Your task to perform on an android device: Open the calendar and show me this week's events? Image 0: 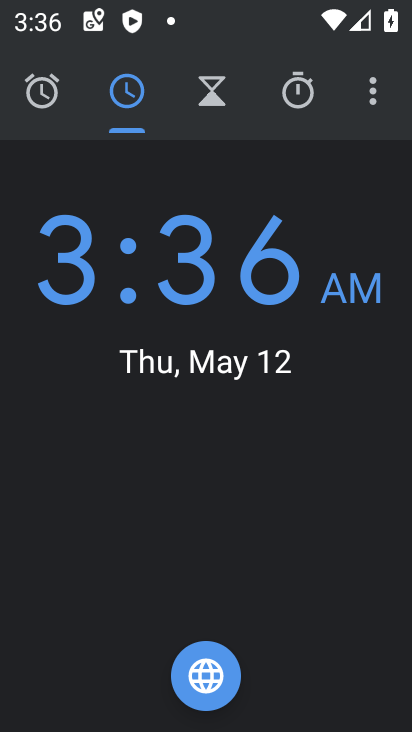
Step 0: click (368, 90)
Your task to perform on an android device: Open the calendar and show me this week's events? Image 1: 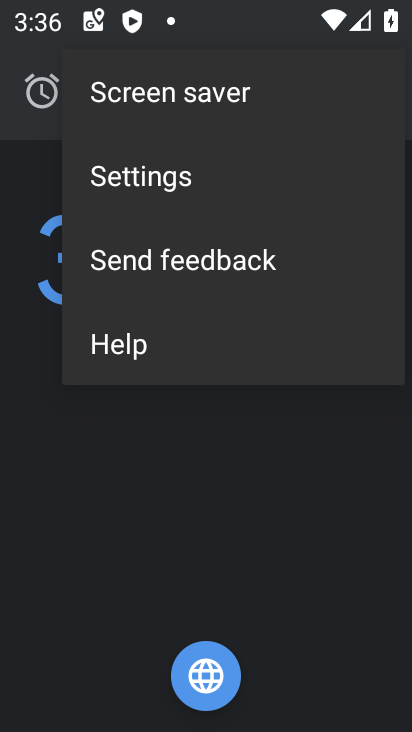
Step 1: press home button
Your task to perform on an android device: Open the calendar and show me this week's events? Image 2: 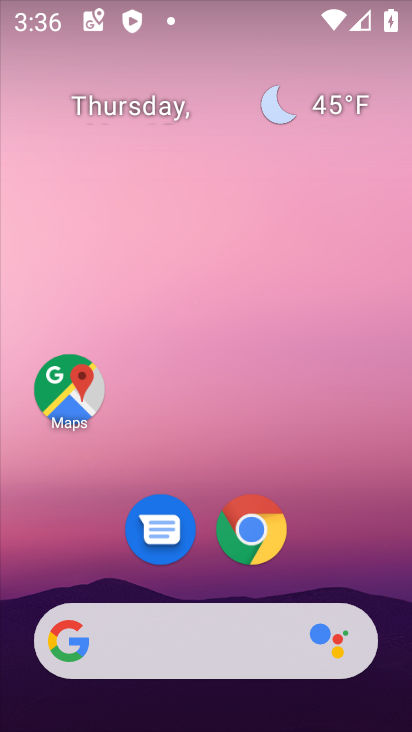
Step 2: drag from (317, 571) to (292, 42)
Your task to perform on an android device: Open the calendar and show me this week's events? Image 3: 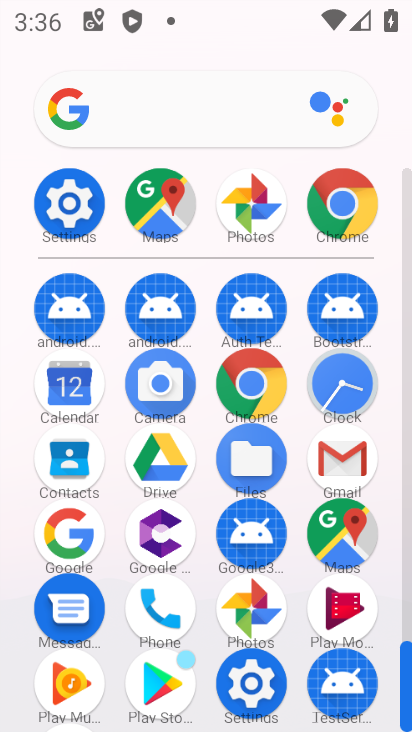
Step 3: click (74, 393)
Your task to perform on an android device: Open the calendar and show me this week's events? Image 4: 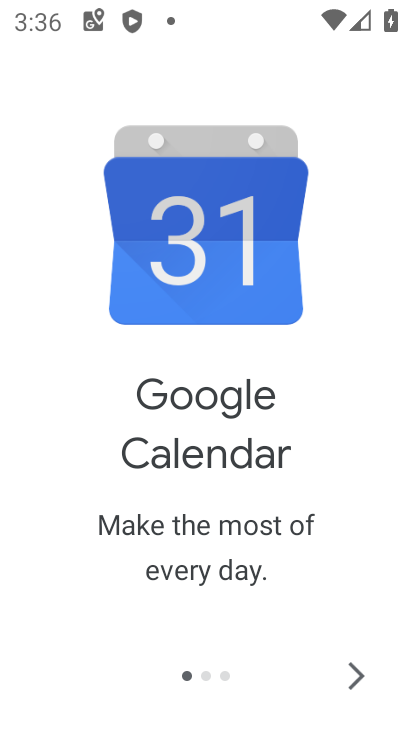
Step 4: click (362, 667)
Your task to perform on an android device: Open the calendar and show me this week's events? Image 5: 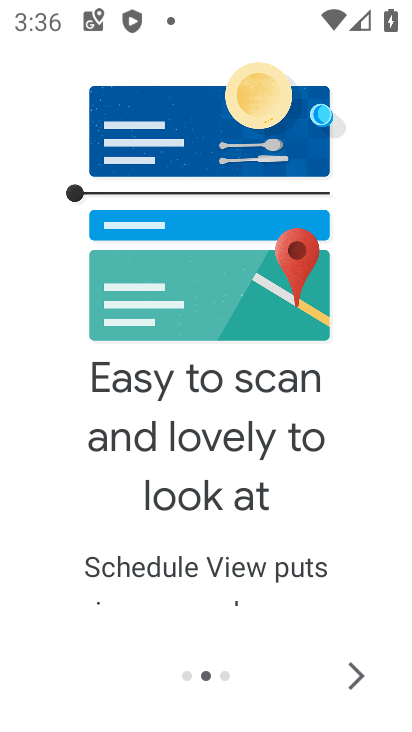
Step 5: click (361, 670)
Your task to perform on an android device: Open the calendar and show me this week's events? Image 6: 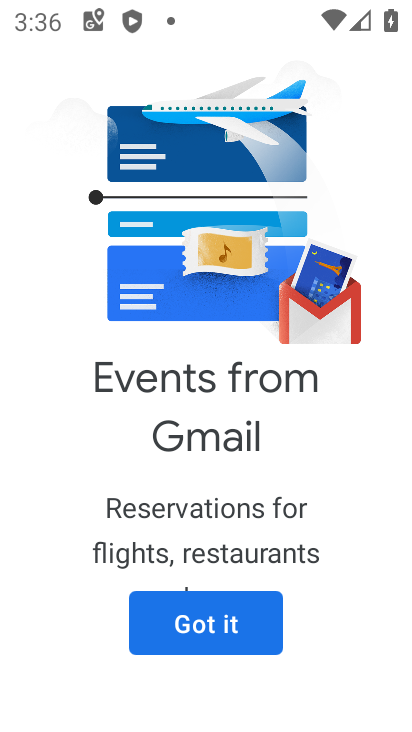
Step 6: click (208, 615)
Your task to perform on an android device: Open the calendar and show me this week's events? Image 7: 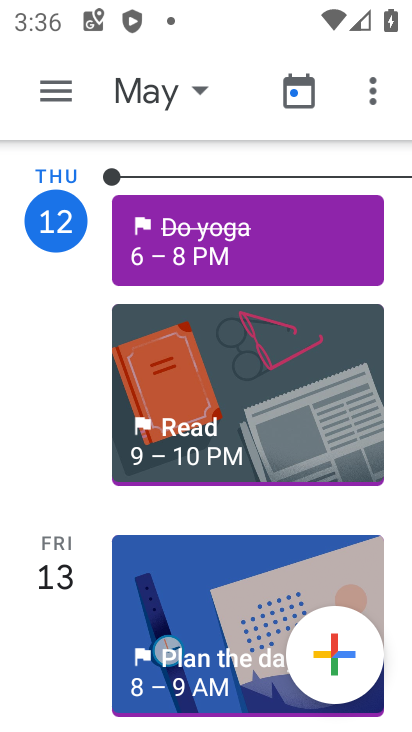
Step 7: click (147, 89)
Your task to perform on an android device: Open the calendar and show me this week's events? Image 8: 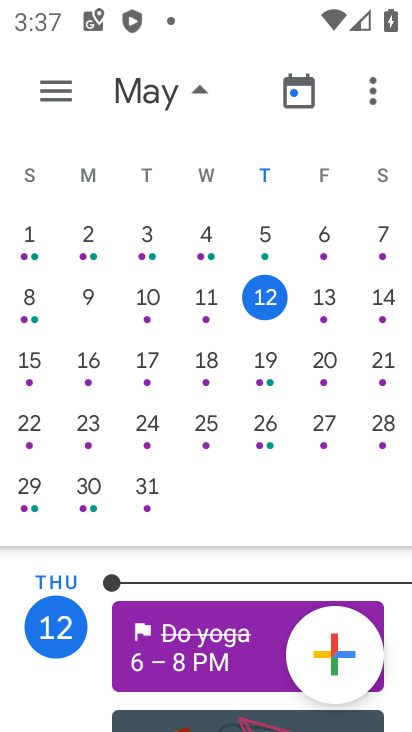
Step 8: click (330, 308)
Your task to perform on an android device: Open the calendar and show me this week's events? Image 9: 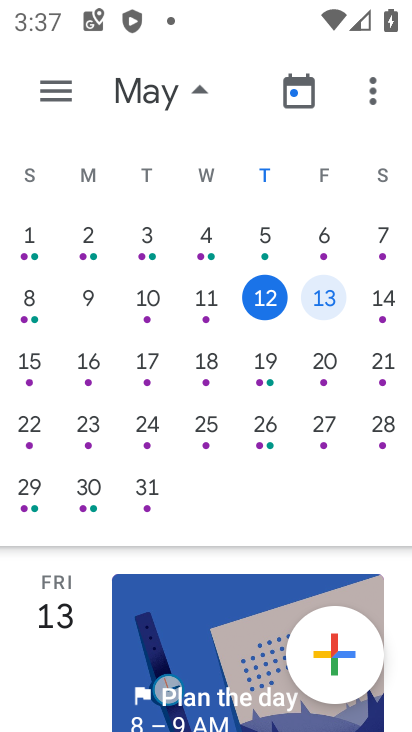
Step 9: click (330, 309)
Your task to perform on an android device: Open the calendar and show me this week's events? Image 10: 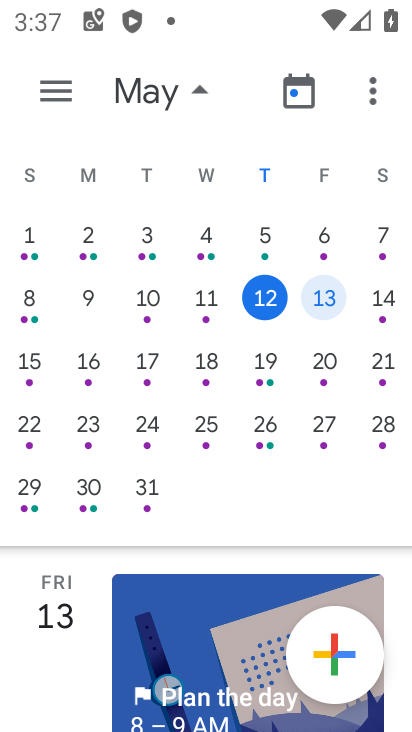
Step 10: click (382, 309)
Your task to perform on an android device: Open the calendar and show me this week's events? Image 11: 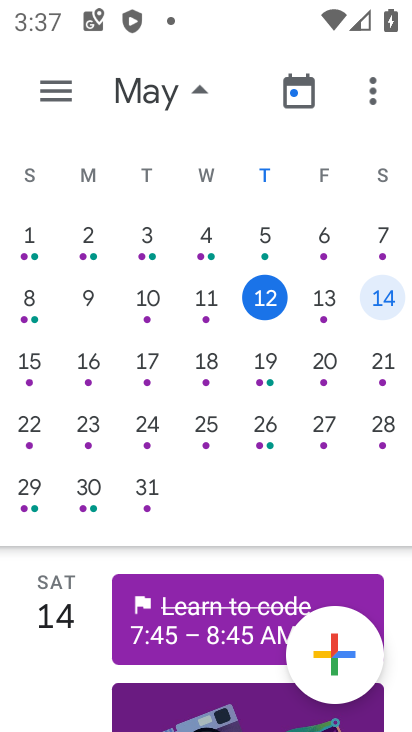
Step 11: task complete